Your task to perform on an android device: View the shopping cart on bestbuy.com. Add logitech g903 to the cart on bestbuy.com Image 0: 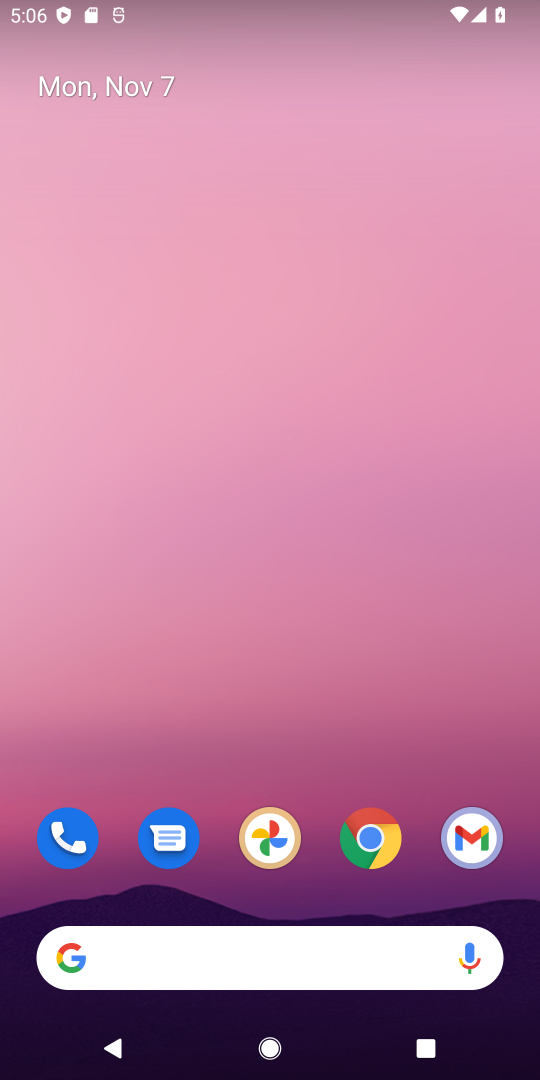
Step 0: click (373, 844)
Your task to perform on an android device: View the shopping cart on bestbuy.com. Add logitech g903 to the cart on bestbuy.com Image 1: 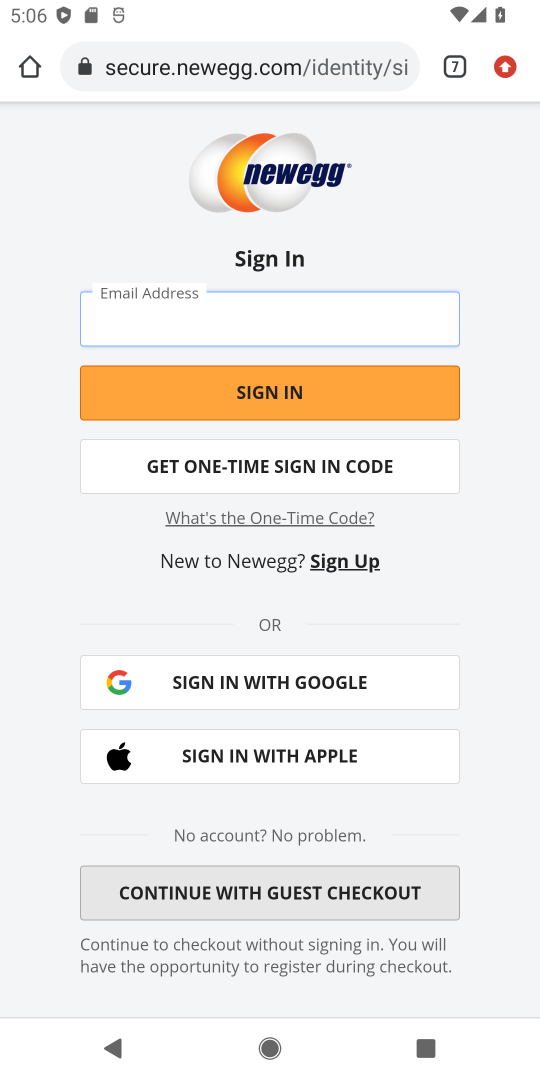
Step 1: click (457, 69)
Your task to perform on an android device: View the shopping cart on bestbuy.com. Add logitech g903 to the cart on bestbuy.com Image 2: 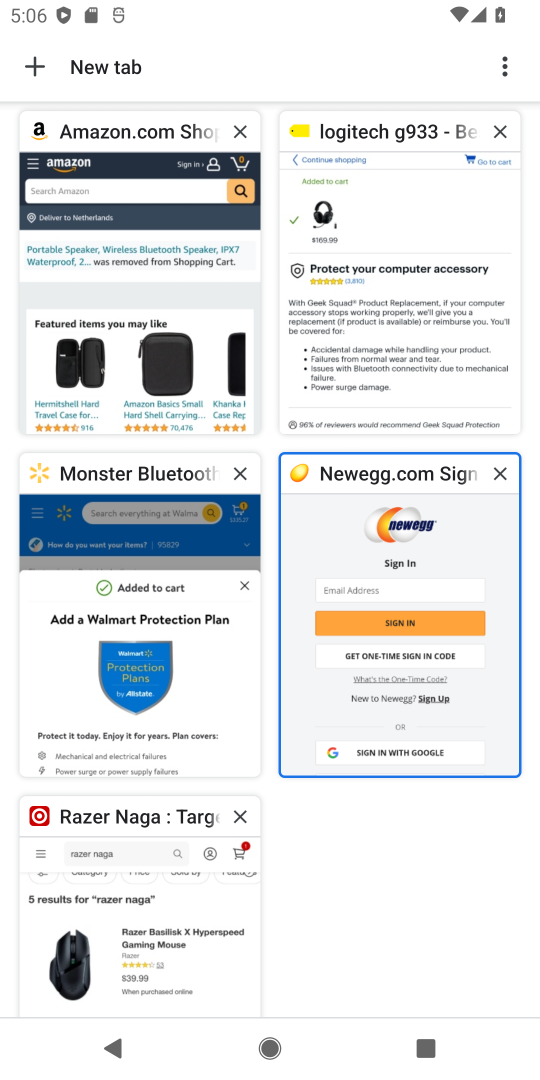
Step 2: click (394, 188)
Your task to perform on an android device: View the shopping cart on bestbuy.com. Add logitech g903 to the cart on bestbuy.com Image 3: 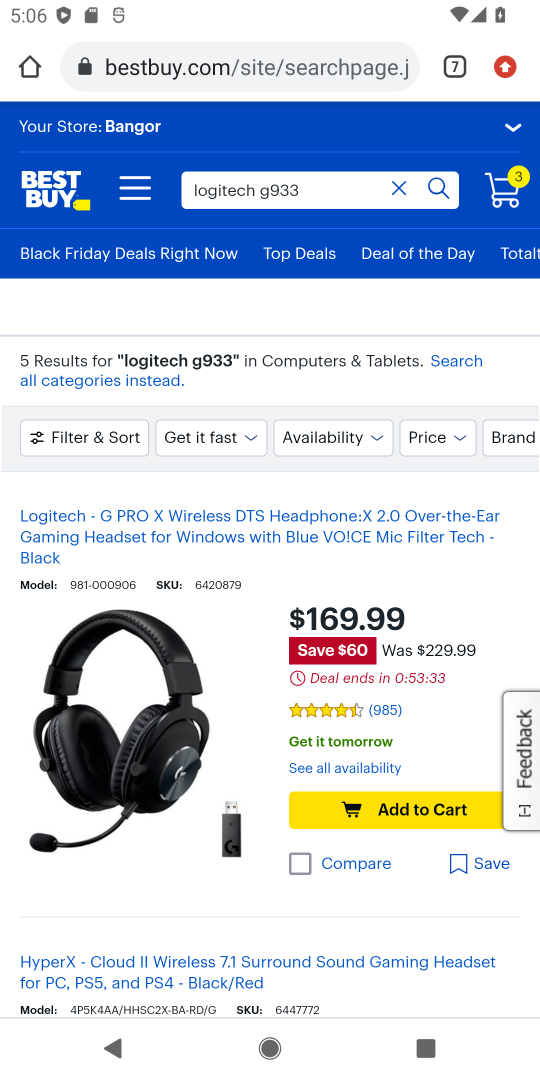
Step 3: click (393, 803)
Your task to perform on an android device: View the shopping cart on bestbuy.com. Add logitech g903 to the cart on bestbuy.com Image 4: 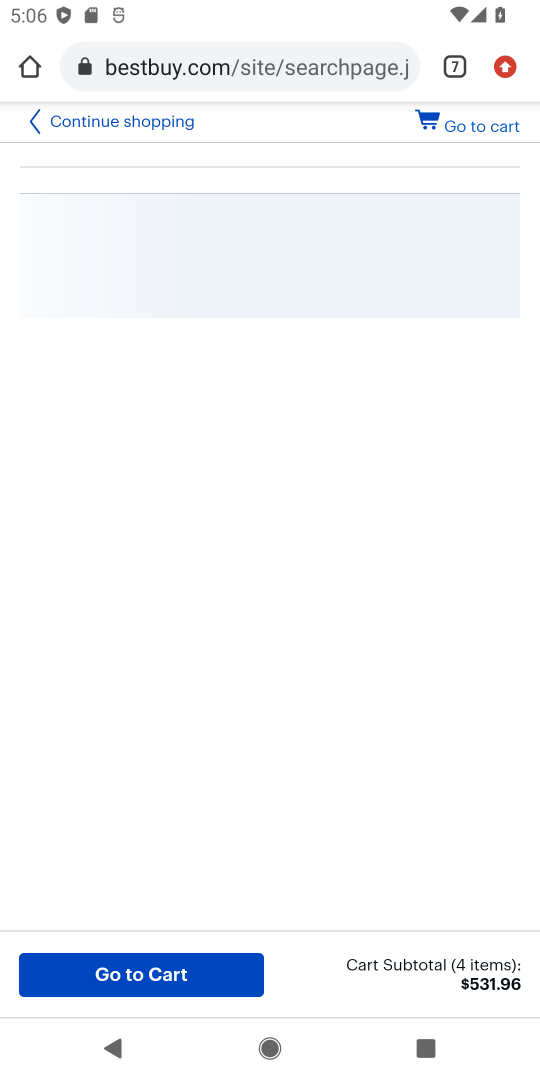
Step 4: task complete